Your task to perform on an android device: check out phone information Image 0: 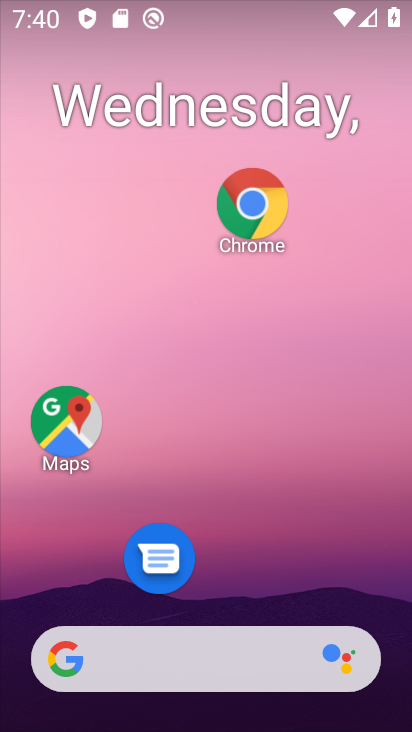
Step 0: drag from (222, 589) to (267, 58)
Your task to perform on an android device: check out phone information Image 1: 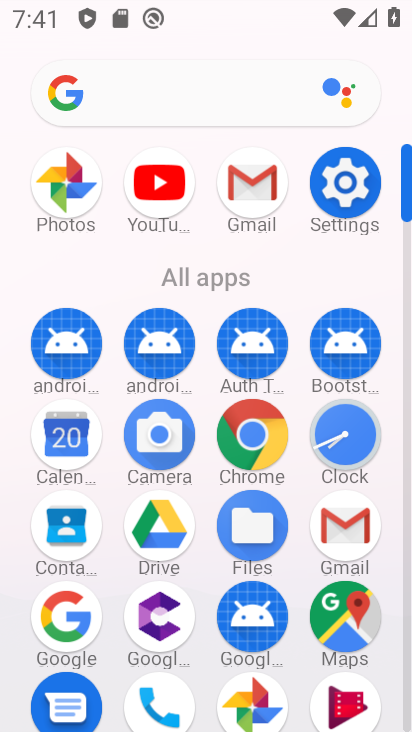
Step 1: click (341, 169)
Your task to perform on an android device: check out phone information Image 2: 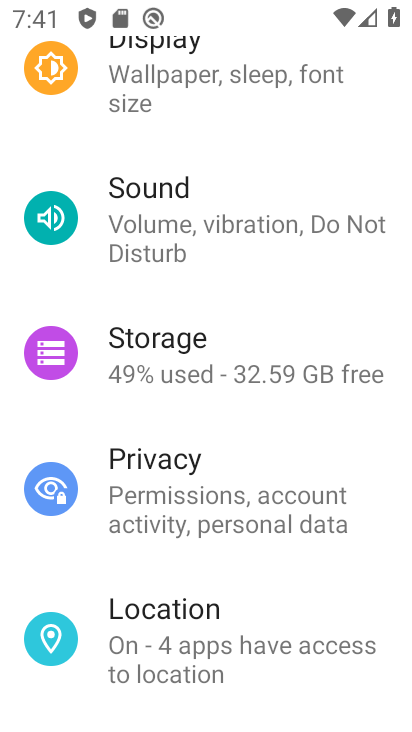
Step 2: drag from (234, 630) to (295, 52)
Your task to perform on an android device: check out phone information Image 3: 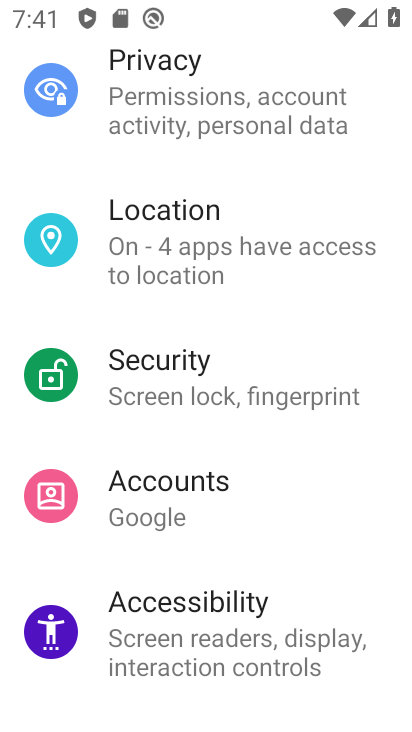
Step 3: drag from (232, 598) to (236, 174)
Your task to perform on an android device: check out phone information Image 4: 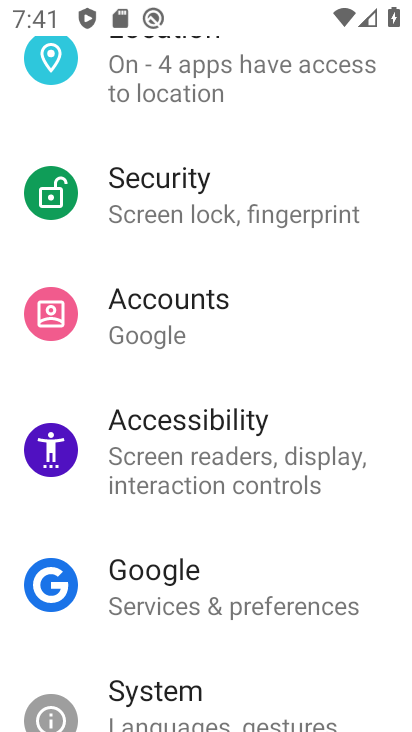
Step 4: drag from (201, 611) to (227, 155)
Your task to perform on an android device: check out phone information Image 5: 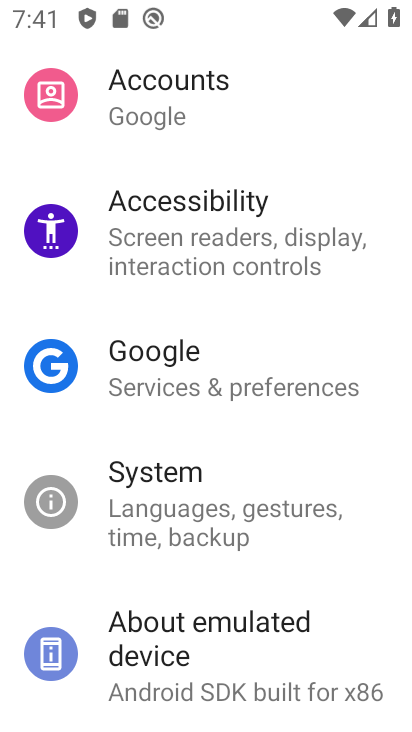
Step 5: click (211, 650)
Your task to perform on an android device: check out phone information Image 6: 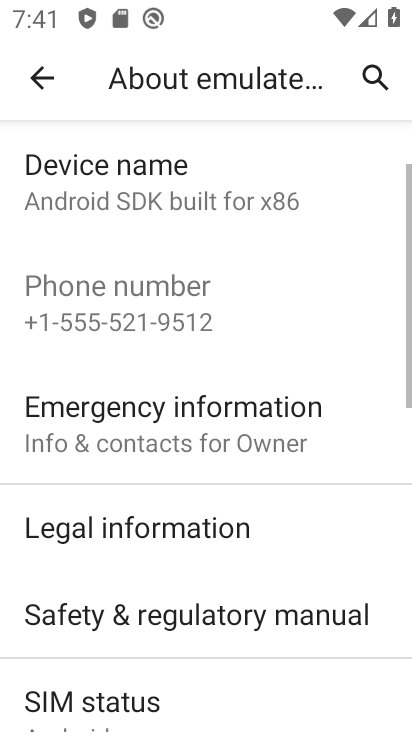
Step 6: task complete